Your task to perform on an android device: turn on the 24-hour format for clock Image 0: 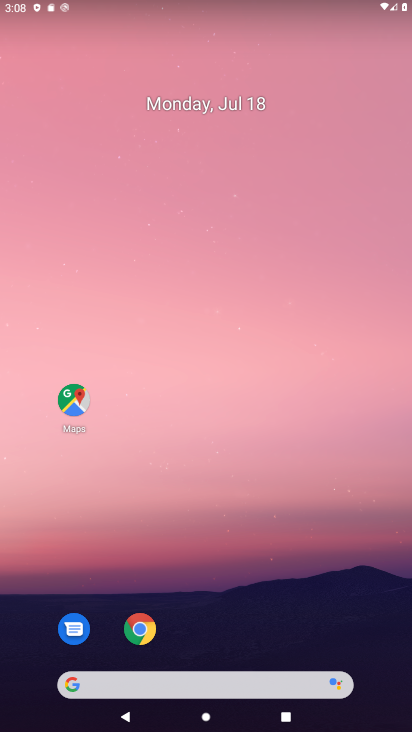
Step 0: drag from (369, 716) to (330, 159)
Your task to perform on an android device: turn on the 24-hour format for clock Image 1: 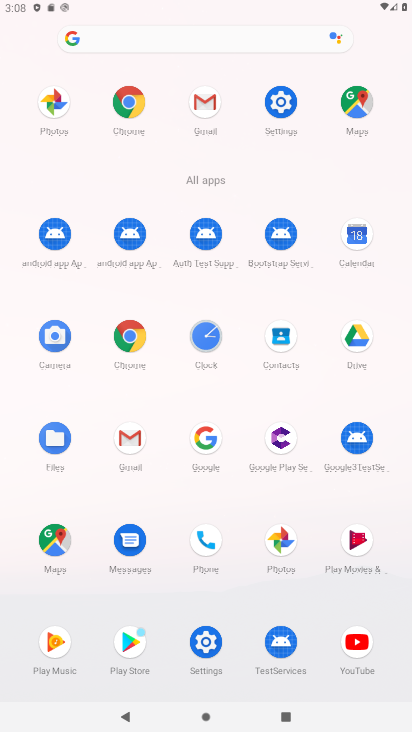
Step 1: click (195, 343)
Your task to perform on an android device: turn on the 24-hour format for clock Image 2: 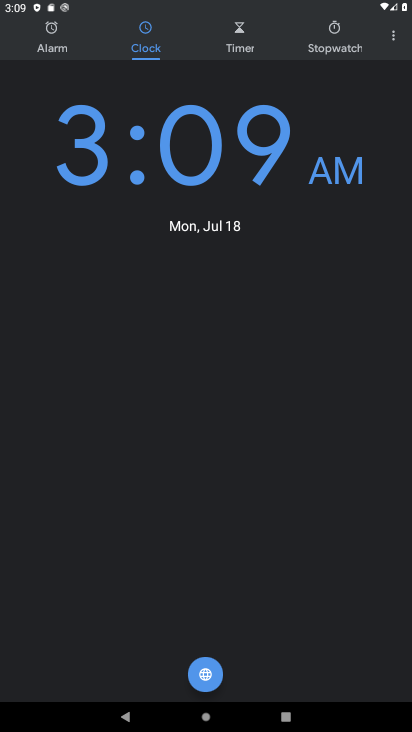
Step 2: click (370, 40)
Your task to perform on an android device: turn on the 24-hour format for clock Image 3: 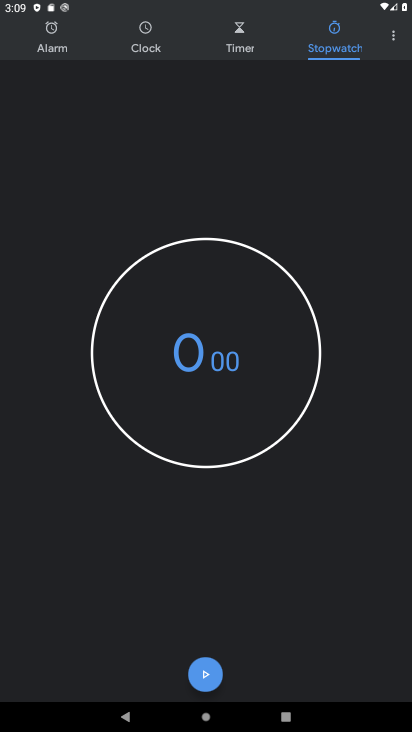
Step 3: click (391, 37)
Your task to perform on an android device: turn on the 24-hour format for clock Image 4: 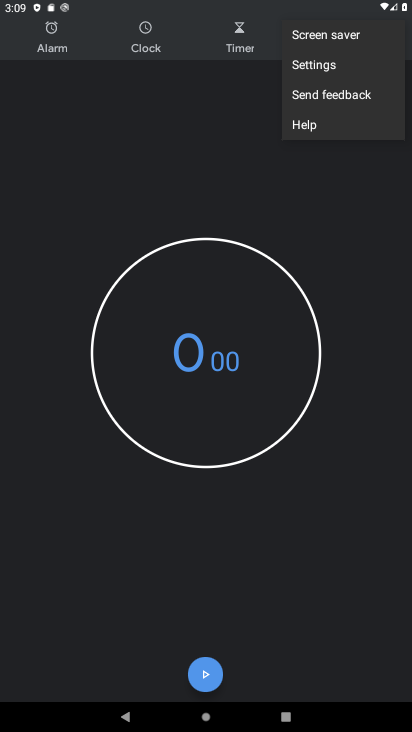
Step 4: click (306, 65)
Your task to perform on an android device: turn on the 24-hour format for clock Image 5: 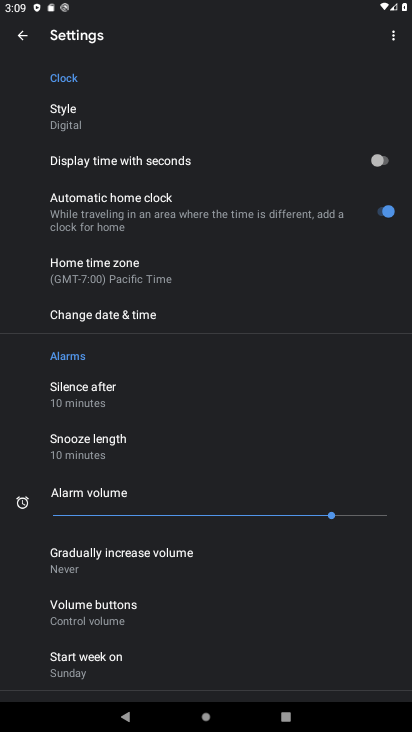
Step 5: click (99, 310)
Your task to perform on an android device: turn on the 24-hour format for clock Image 6: 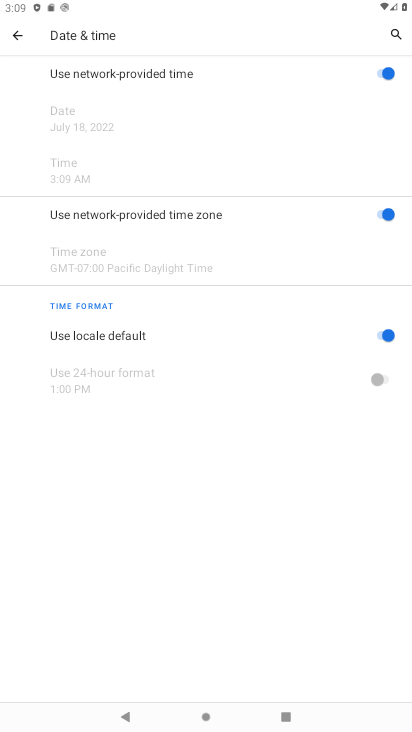
Step 6: click (390, 333)
Your task to perform on an android device: turn on the 24-hour format for clock Image 7: 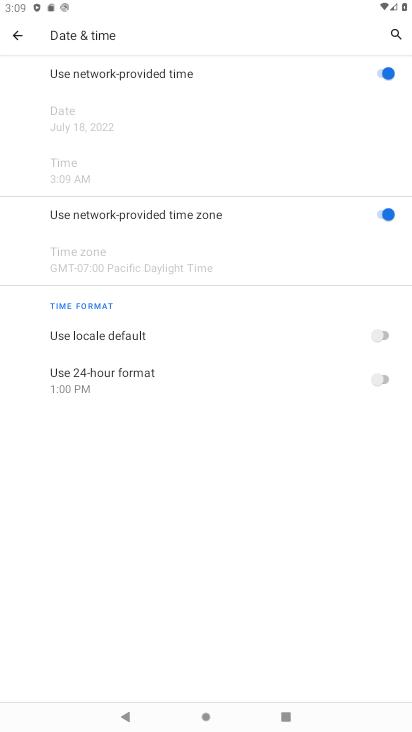
Step 7: click (386, 377)
Your task to perform on an android device: turn on the 24-hour format for clock Image 8: 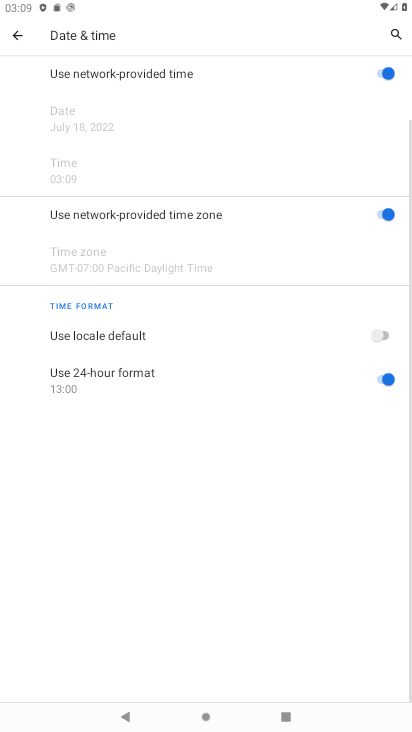
Step 8: task complete